Your task to perform on an android device: Open settings on Google Maps Image 0: 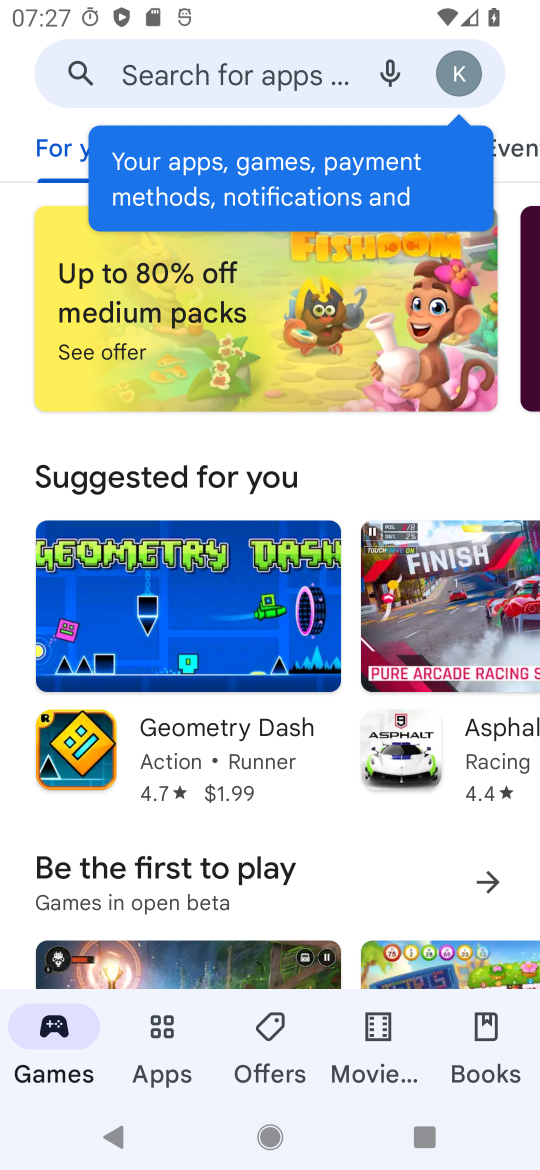
Step 0: press home button
Your task to perform on an android device: Open settings on Google Maps Image 1: 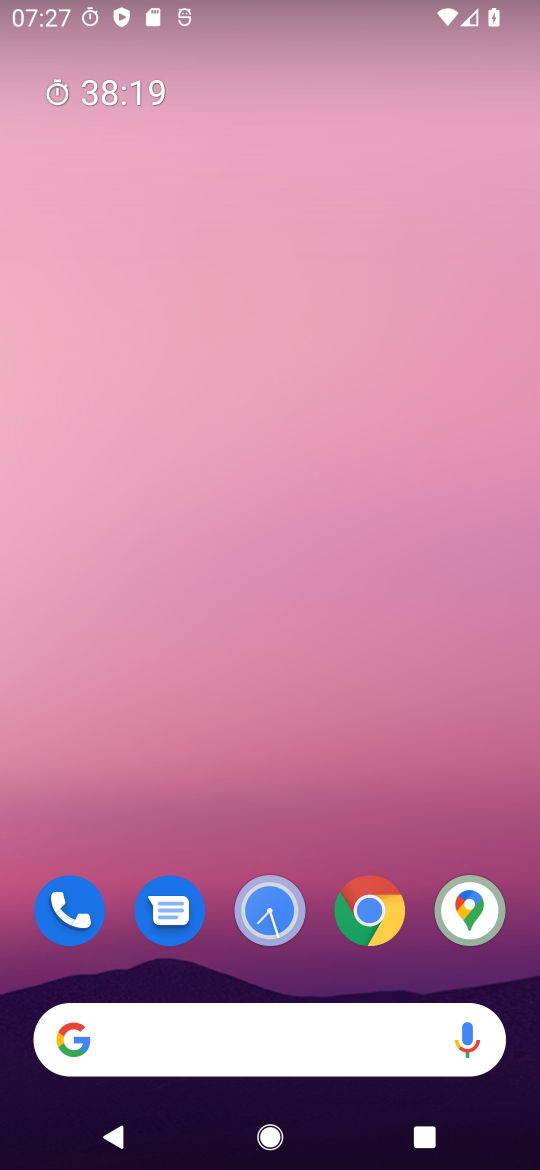
Step 1: drag from (339, 1040) to (357, 225)
Your task to perform on an android device: Open settings on Google Maps Image 2: 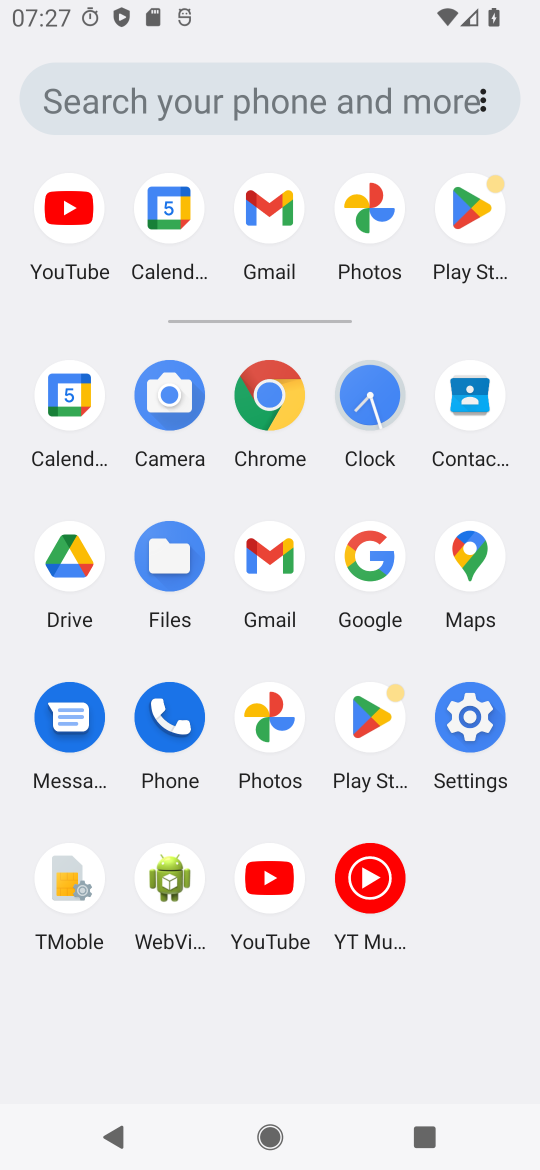
Step 2: click (283, 558)
Your task to perform on an android device: Open settings on Google Maps Image 3: 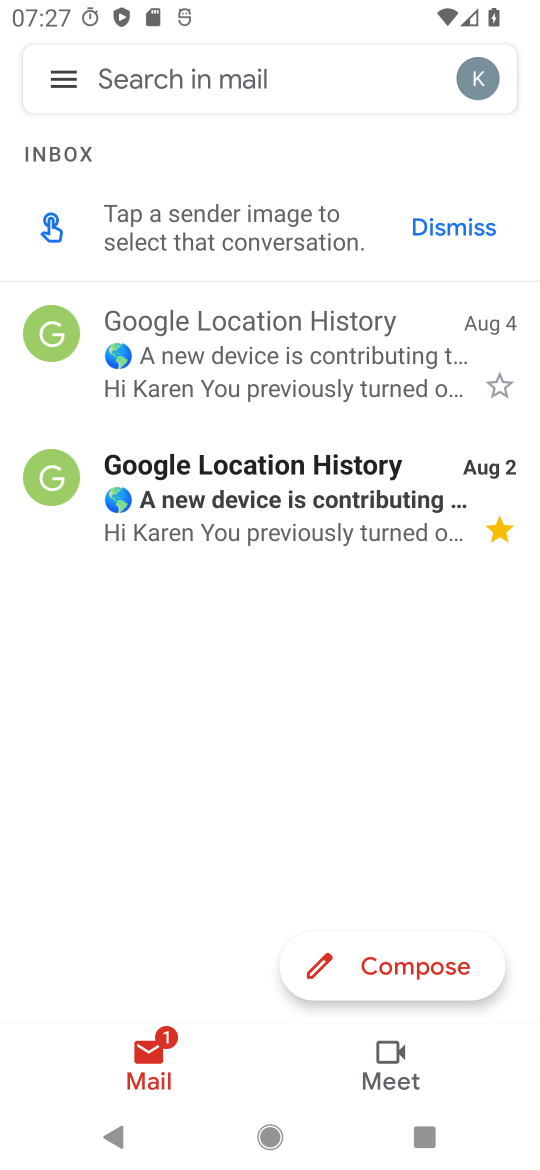
Step 3: click (55, 69)
Your task to perform on an android device: Open settings on Google Maps Image 4: 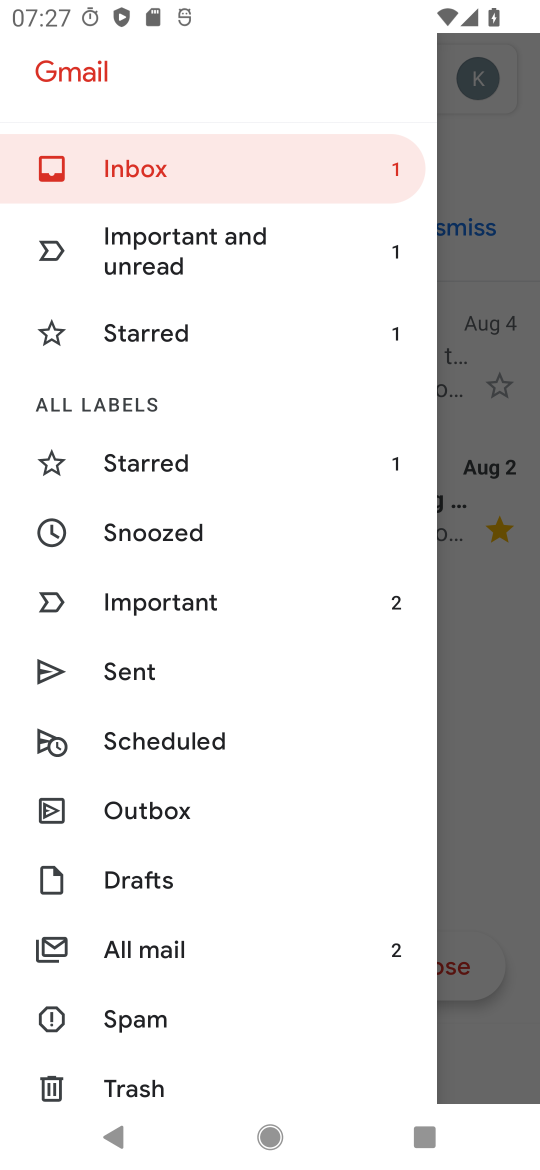
Step 4: press home button
Your task to perform on an android device: Open settings on Google Maps Image 5: 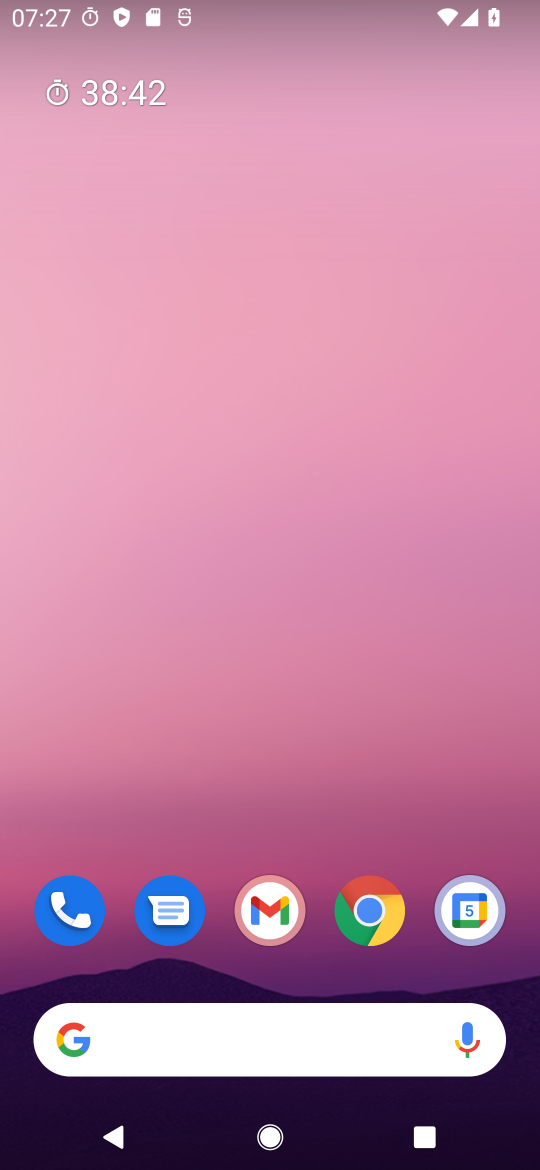
Step 5: drag from (309, 1041) to (336, 125)
Your task to perform on an android device: Open settings on Google Maps Image 6: 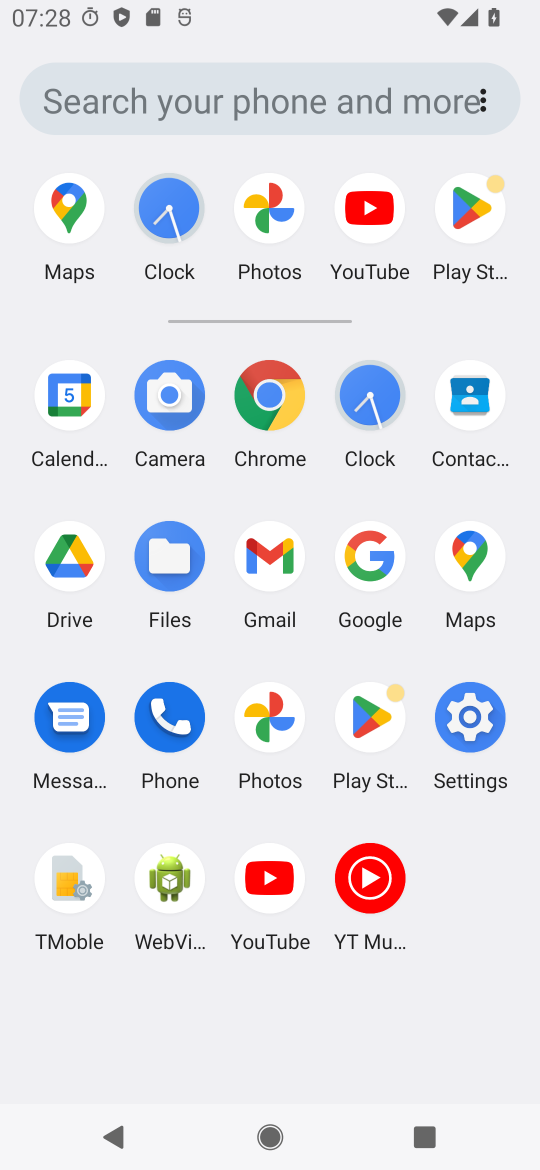
Step 6: click (473, 549)
Your task to perform on an android device: Open settings on Google Maps Image 7: 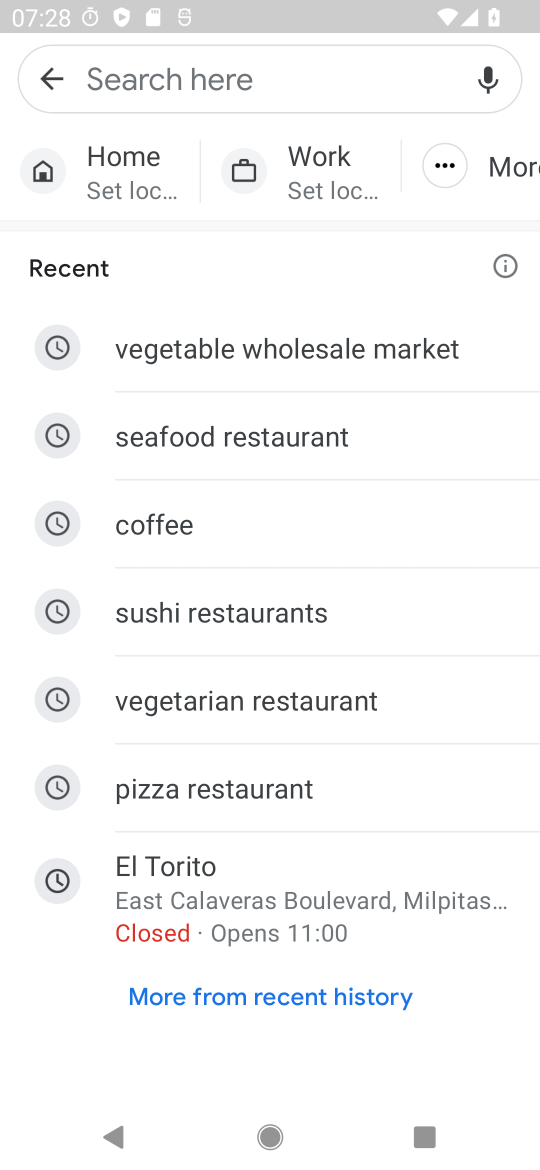
Step 7: press back button
Your task to perform on an android device: Open settings on Google Maps Image 8: 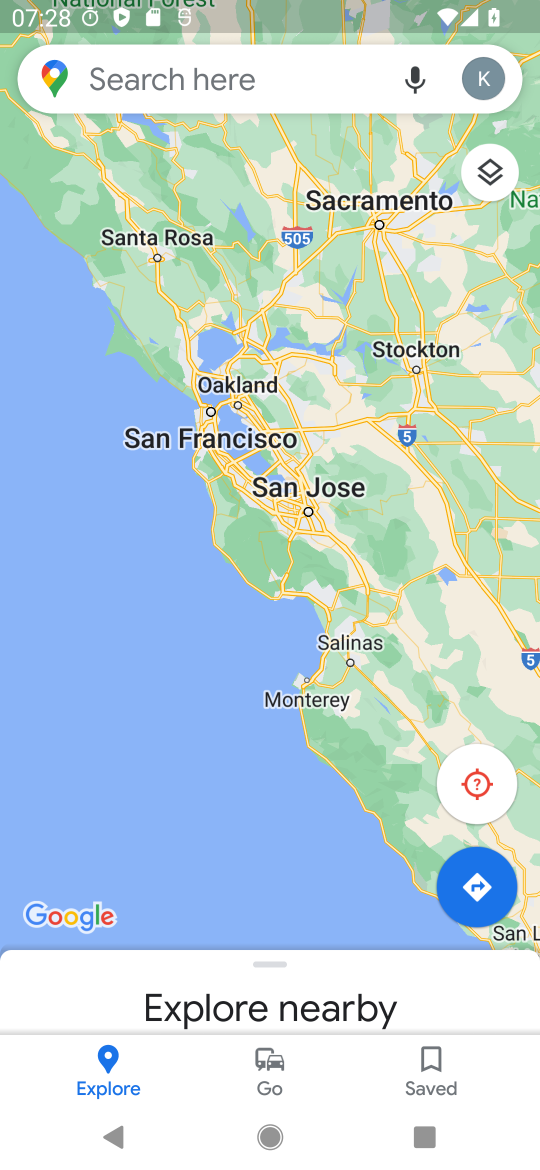
Step 8: click (471, 74)
Your task to perform on an android device: Open settings on Google Maps Image 9: 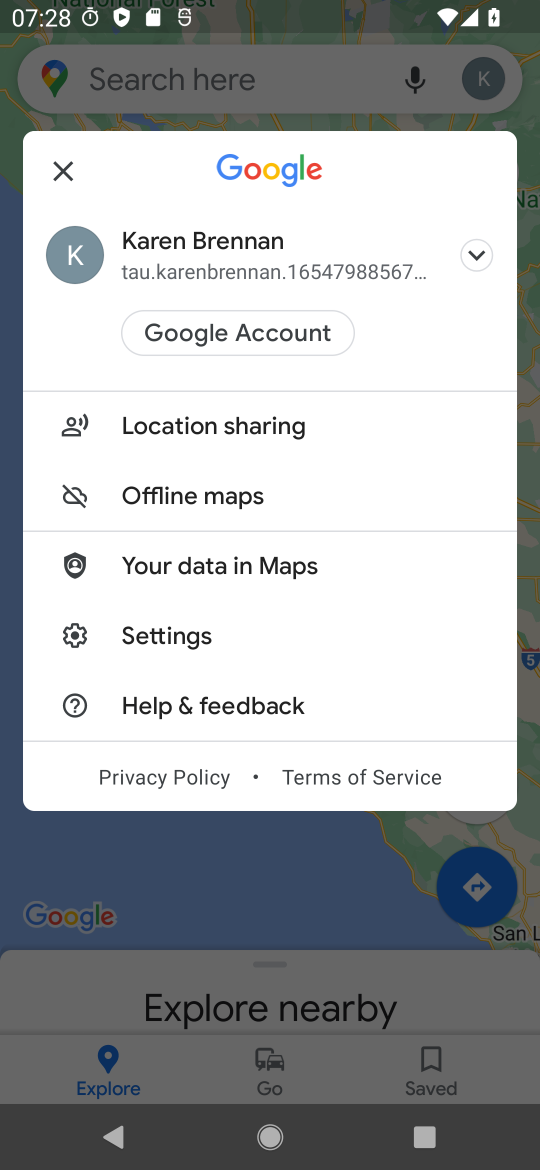
Step 9: click (211, 630)
Your task to perform on an android device: Open settings on Google Maps Image 10: 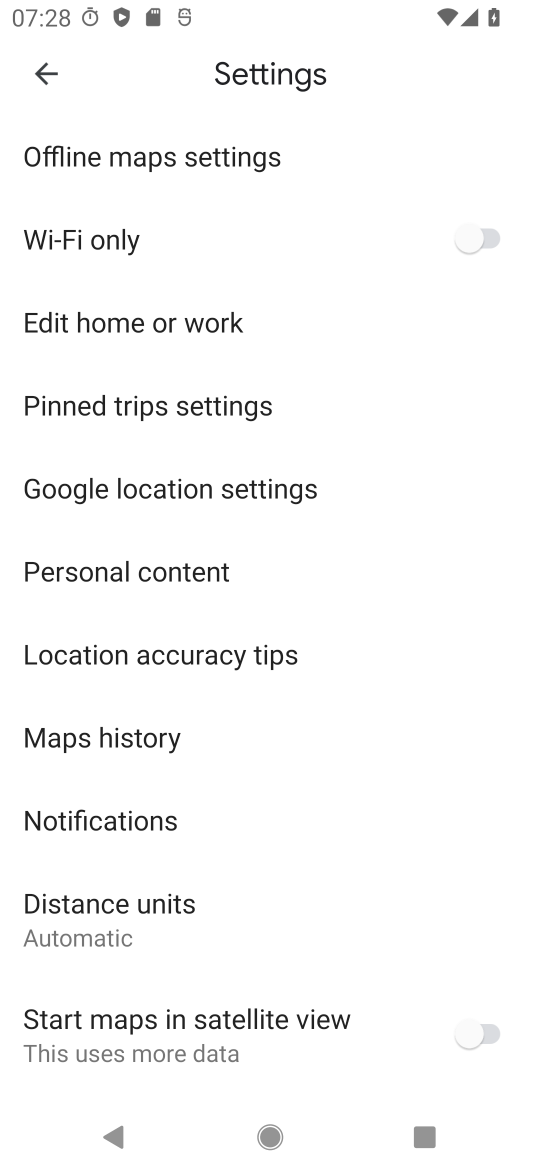
Step 10: task complete